Your task to perform on an android device: Toggle the flashlight Image 0: 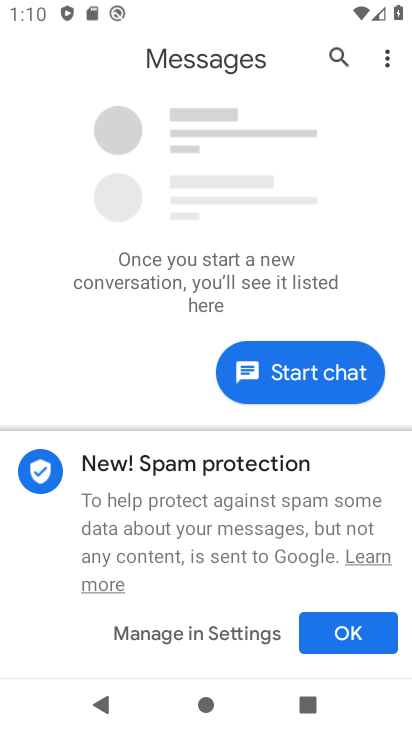
Step 0: press home button
Your task to perform on an android device: Toggle the flashlight Image 1: 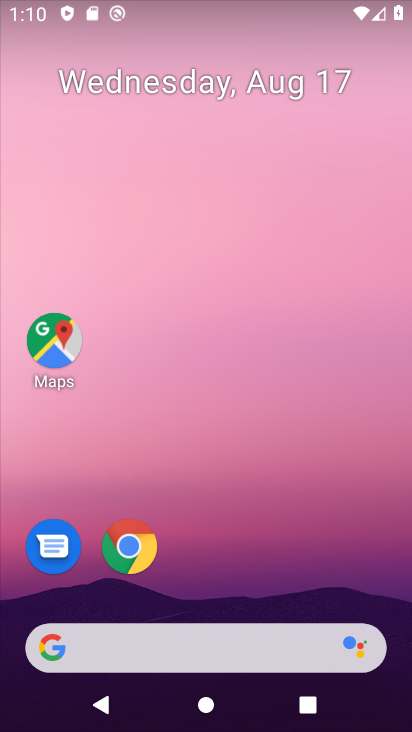
Step 1: drag from (197, 575) to (227, 239)
Your task to perform on an android device: Toggle the flashlight Image 2: 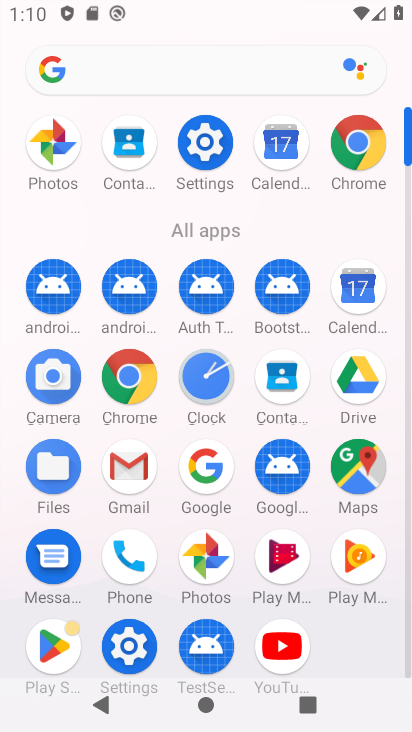
Step 2: click (112, 644)
Your task to perform on an android device: Toggle the flashlight Image 3: 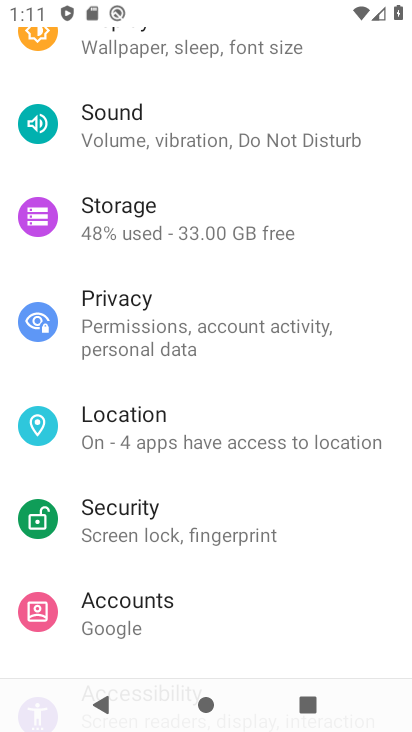
Step 3: task complete